Your task to perform on an android device: Open the web browser Image 0: 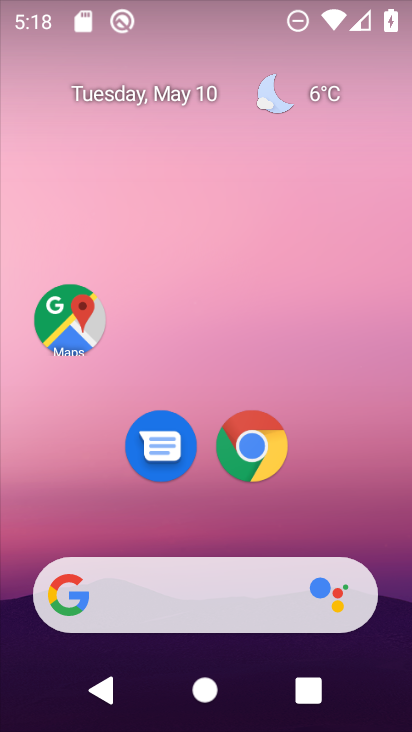
Step 0: click (258, 442)
Your task to perform on an android device: Open the web browser Image 1: 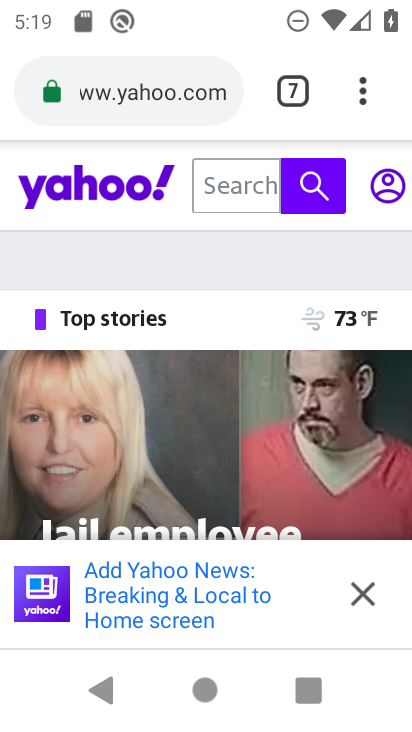
Step 1: task complete